Your task to perform on an android device: delete a single message in the gmail app Image 0: 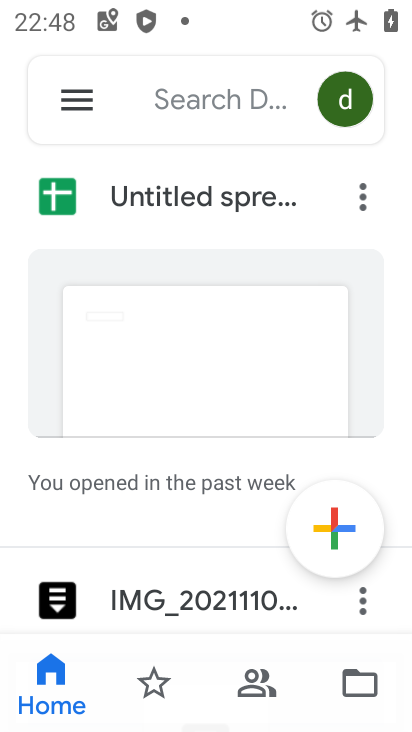
Step 0: press home button
Your task to perform on an android device: delete a single message in the gmail app Image 1: 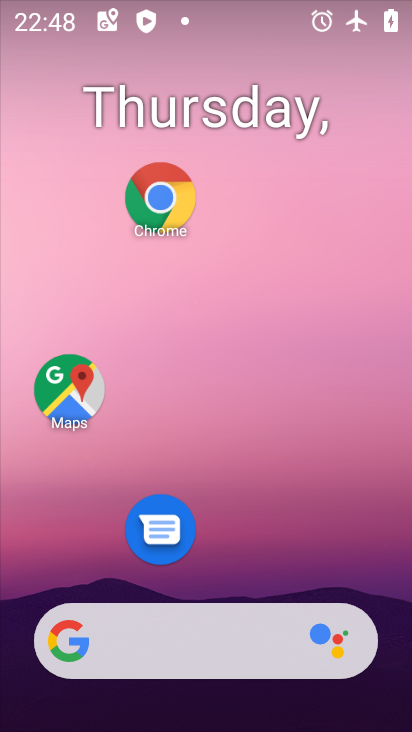
Step 1: drag from (255, 516) to (247, 6)
Your task to perform on an android device: delete a single message in the gmail app Image 2: 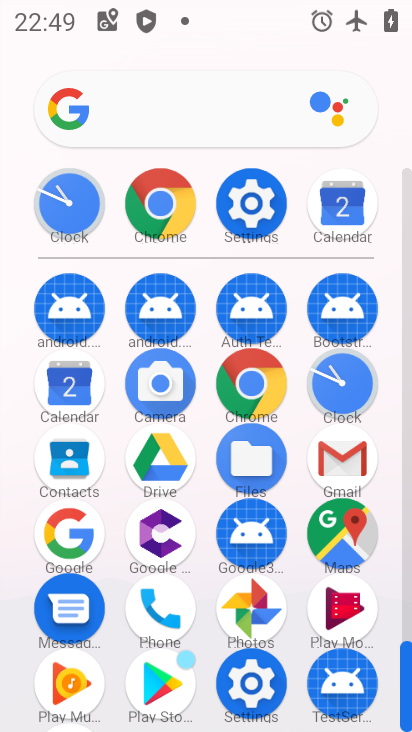
Step 2: click (329, 464)
Your task to perform on an android device: delete a single message in the gmail app Image 3: 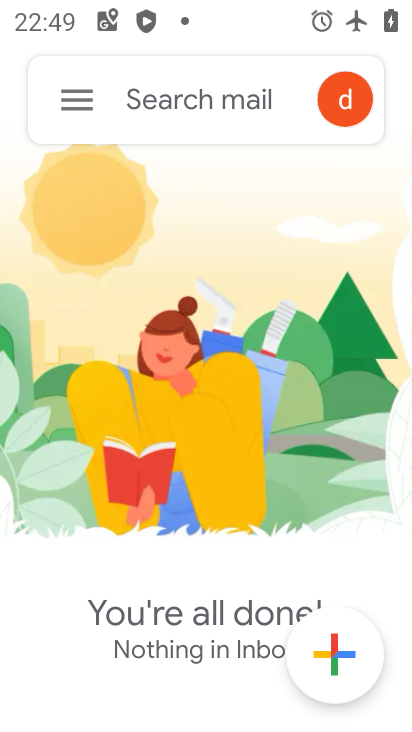
Step 3: click (65, 93)
Your task to perform on an android device: delete a single message in the gmail app Image 4: 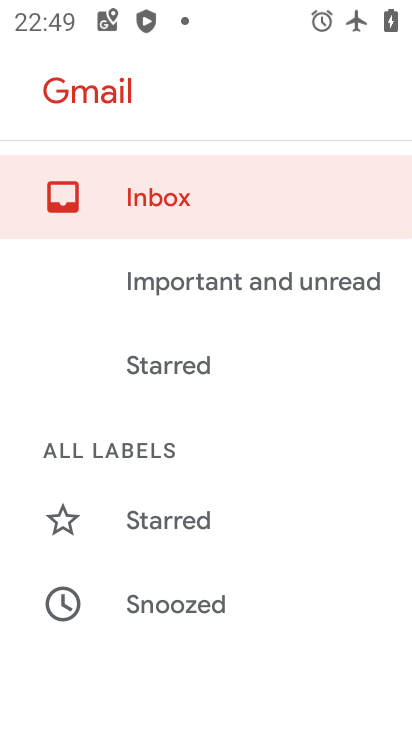
Step 4: drag from (320, 582) to (300, 193)
Your task to perform on an android device: delete a single message in the gmail app Image 5: 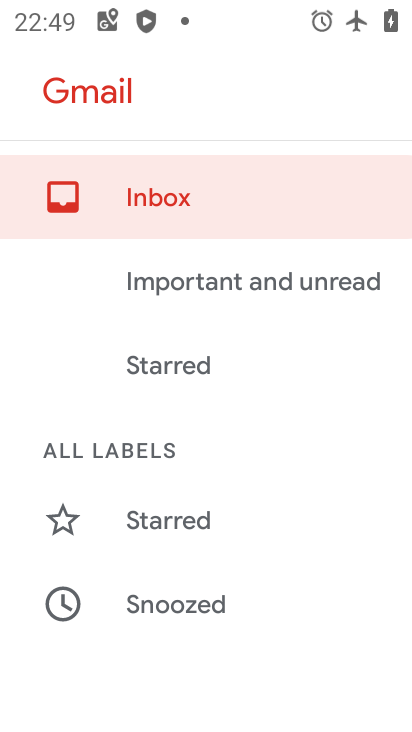
Step 5: drag from (266, 466) to (273, 110)
Your task to perform on an android device: delete a single message in the gmail app Image 6: 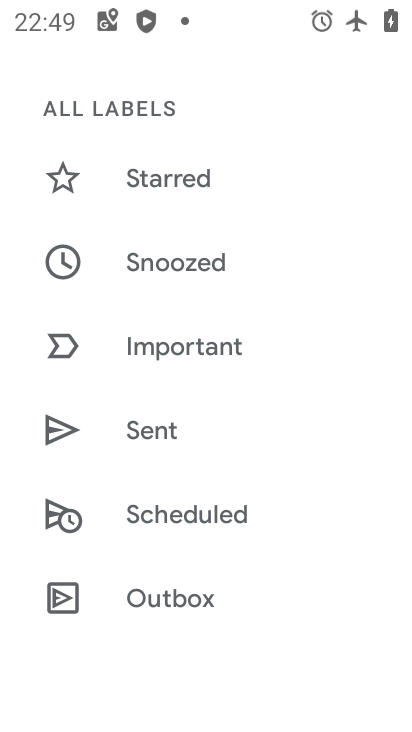
Step 6: drag from (278, 502) to (278, 110)
Your task to perform on an android device: delete a single message in the gmail app Image 7: 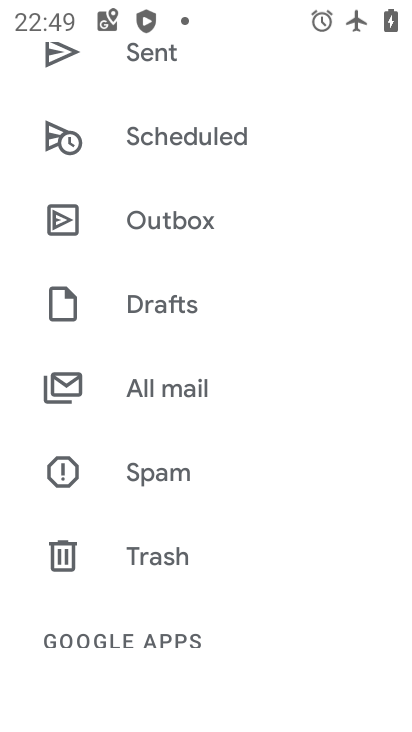
Step 7: click (175, 376)
Your task to perform on an android device: delete a single message in the gmail app Image 8: 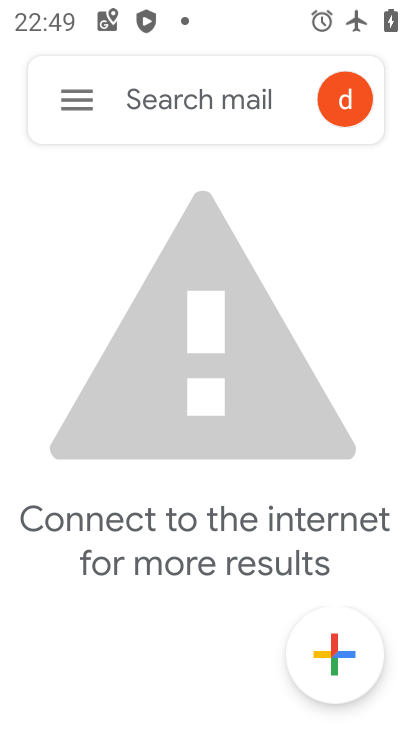
Step 8: task complete